Your task to perform on an android device: turn vacation reply on in the gmail app Image 0: 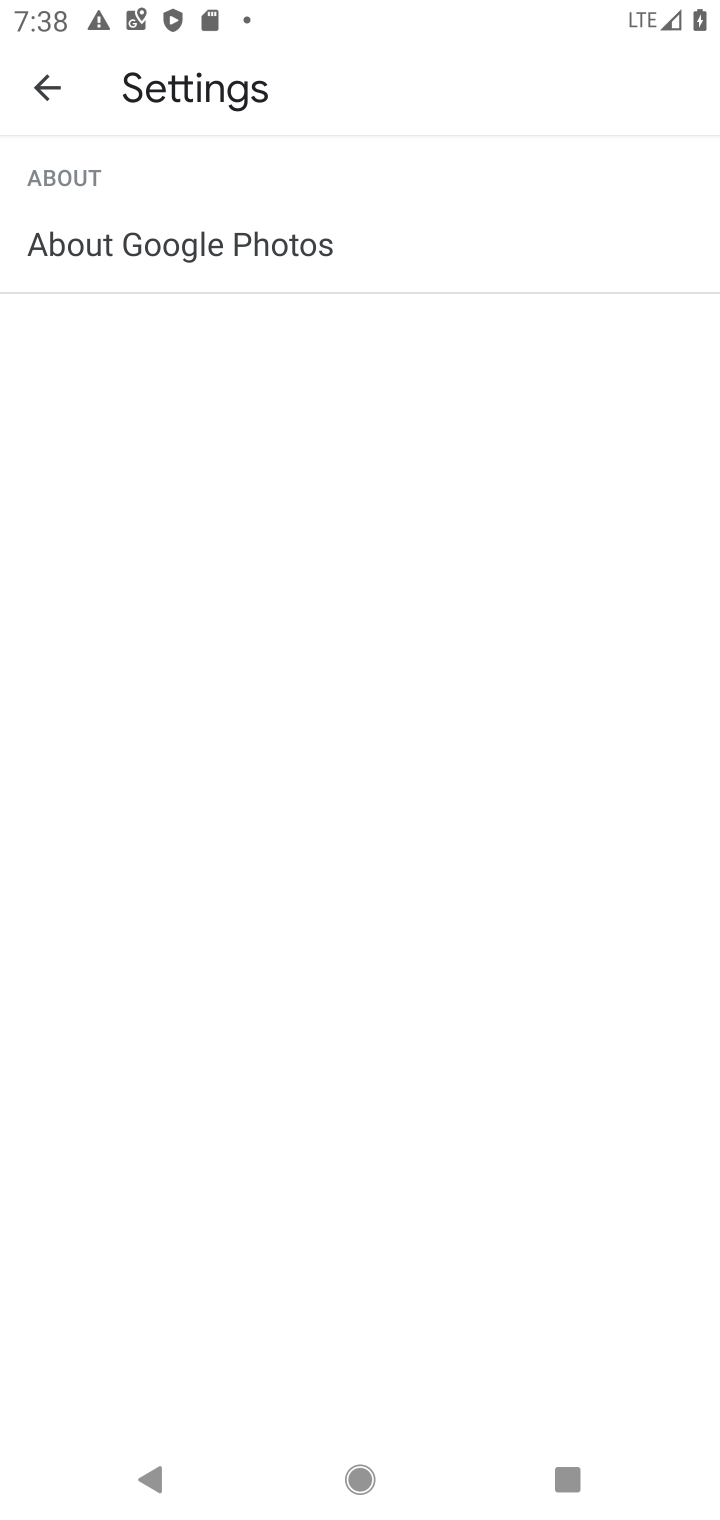
Step 0: press home button
Your task to perform on an android device: turn vacation reply on in the gmail app Image 1: 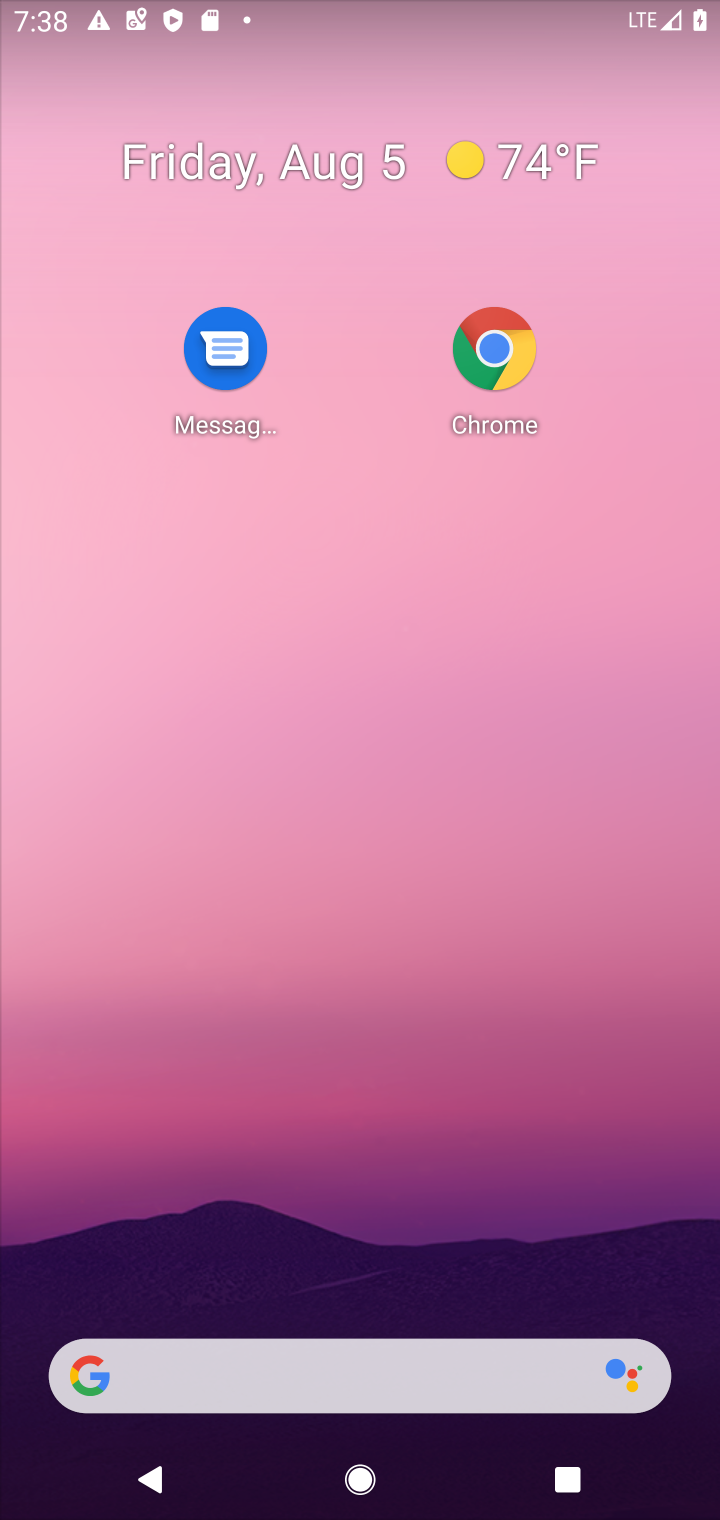
Step 1: drag from (416, 1427) to (406, 738)
Your task to perform on an android device: turn vacation reply on in the gmail app Image 2: 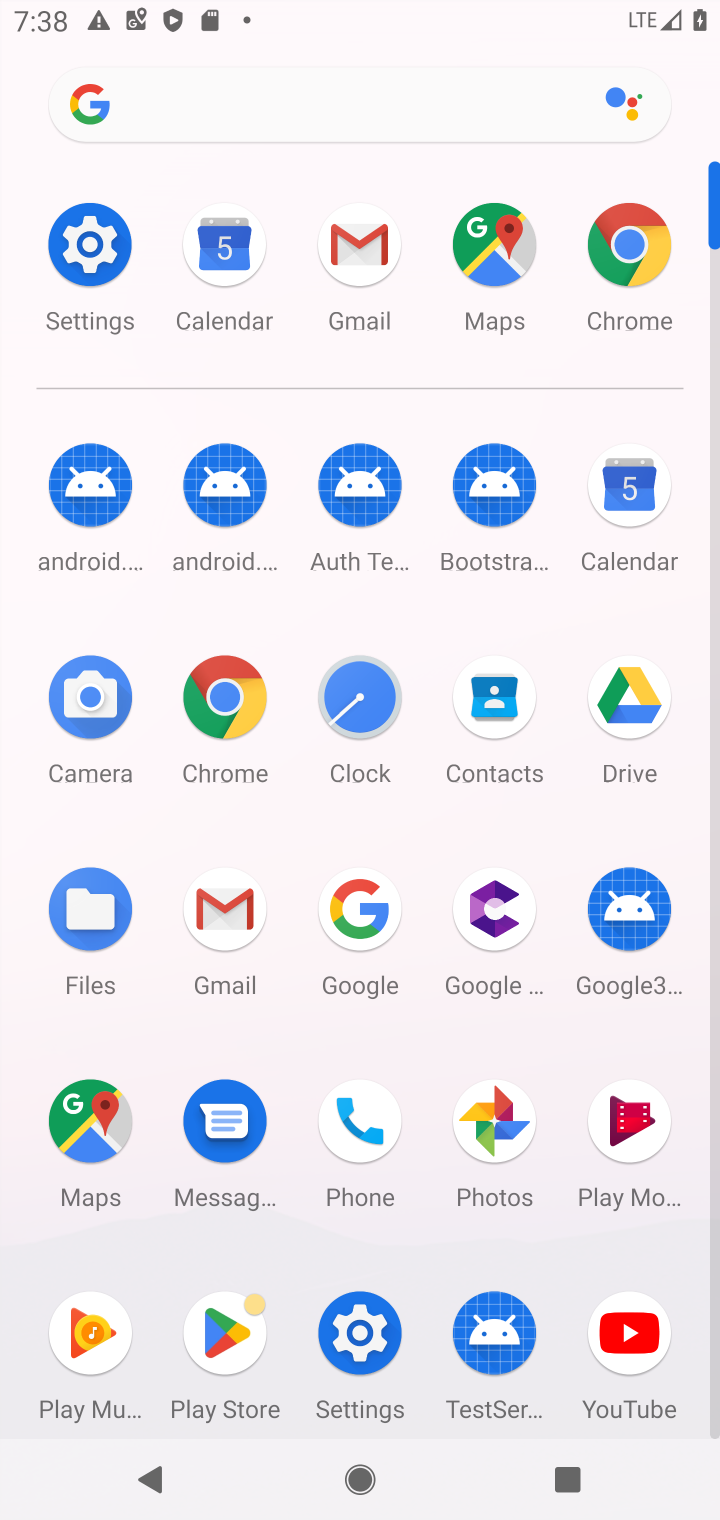
Step 2: click (204, 920)
Your task to perform on an android device: turn vacation reply on in the gmail app Image 3: 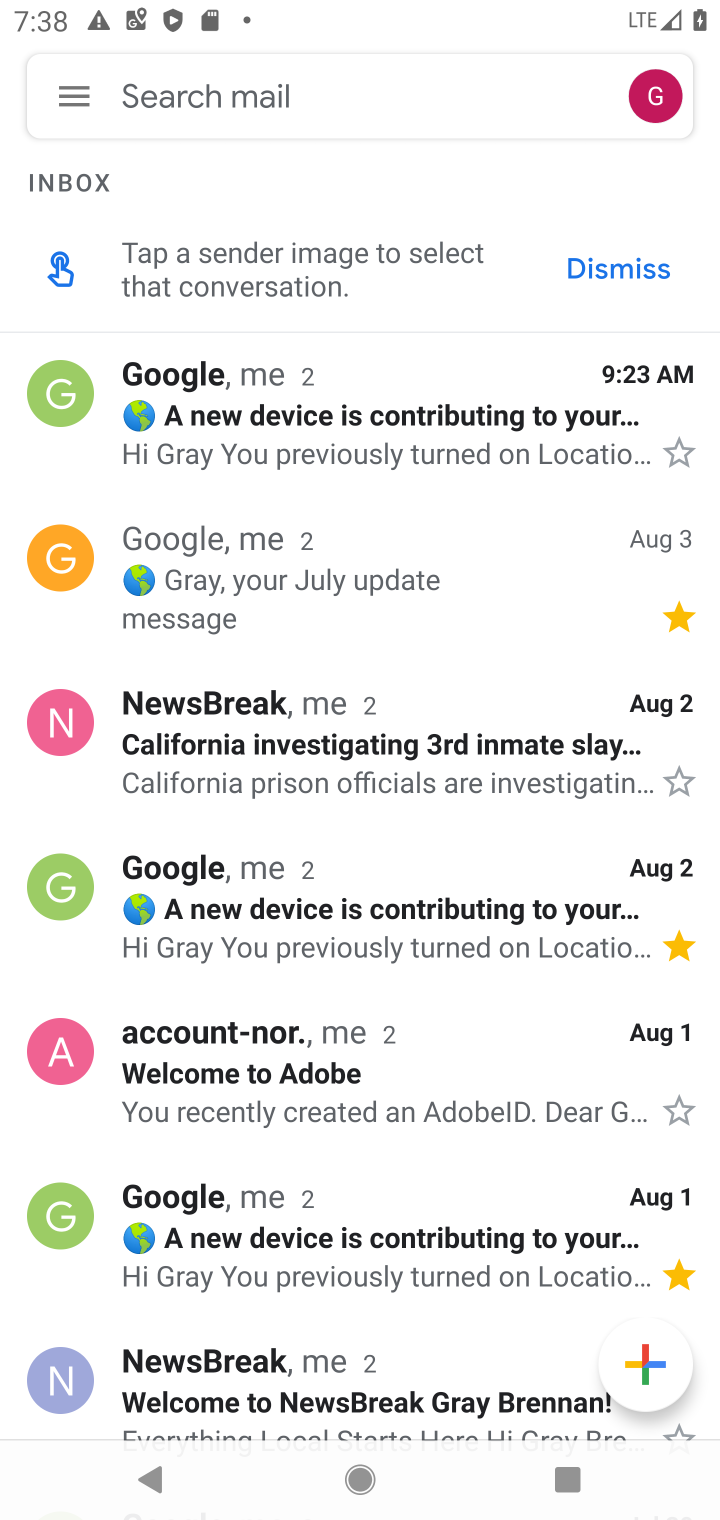
Step 3: click (61, 96)
Your task to perform on an android device: turn vacation reply on in the gmail app Image 4: 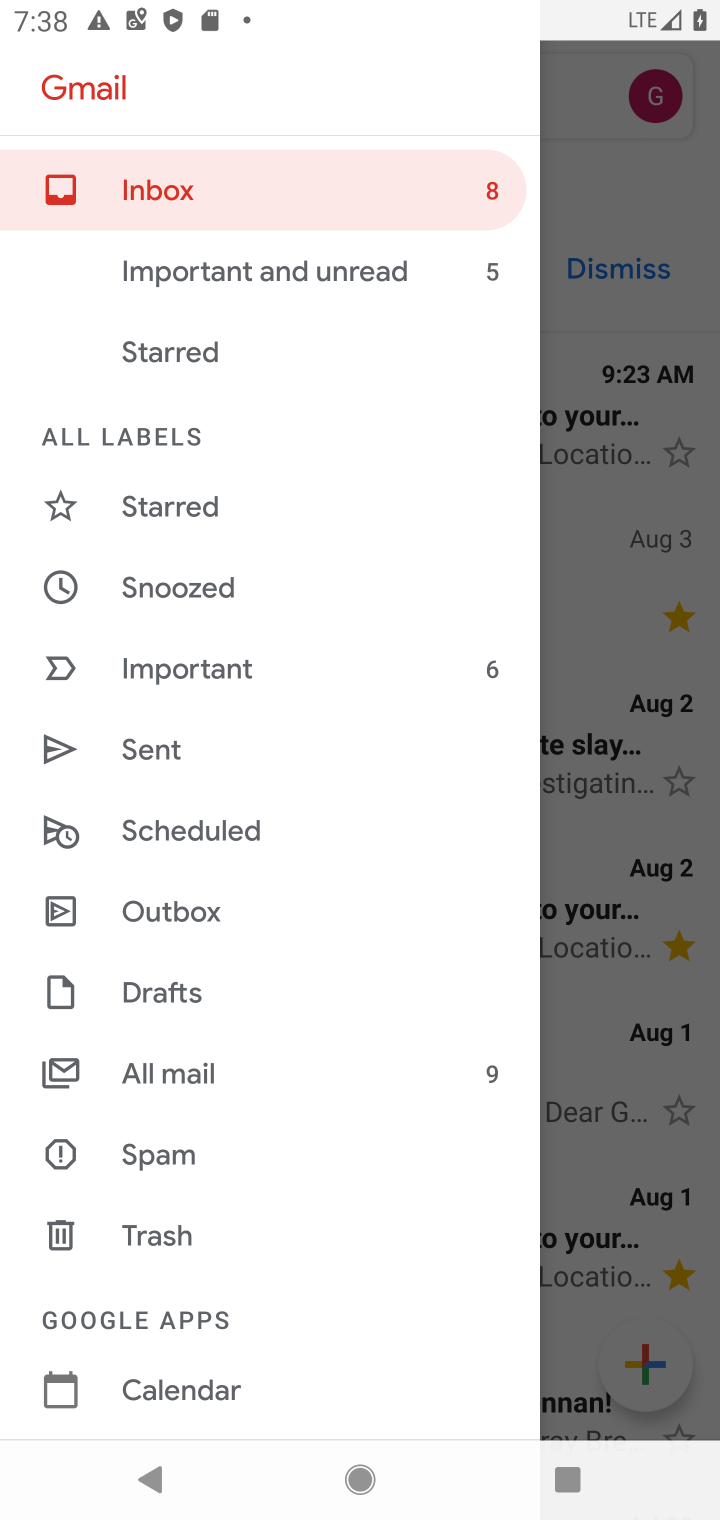
Step 4: drag from (228, 1220) to (386, 793)
Your task to perform on an android device: turn vacation reply on in the gmail app Image 5: 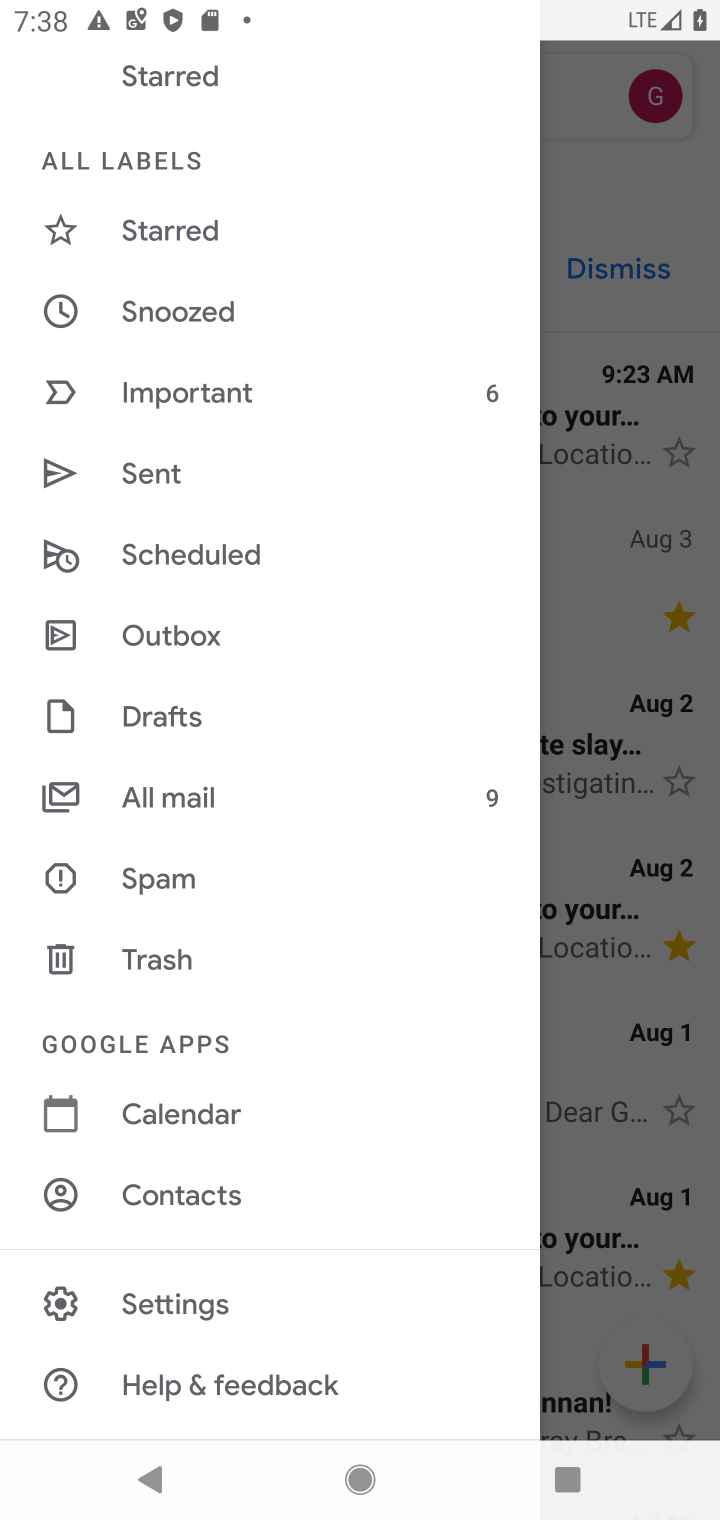
Step 5: click (223, 1320)
Your task to perform on an android device: turn vacation reply on in the gmail app Image 6: 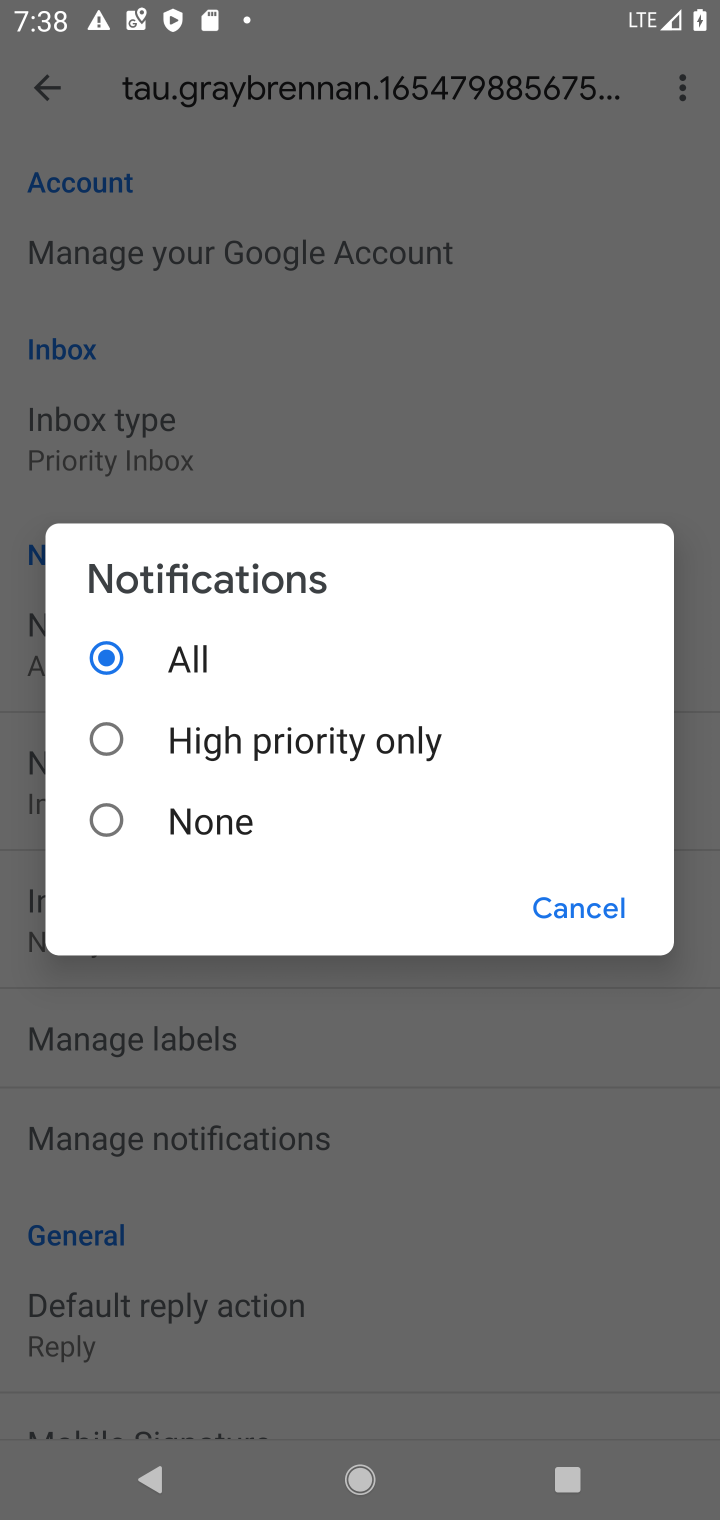
Step 6: click (468, 508)
Your task to perform on an android device: turn vacation reply on in the gmail app Image 7: 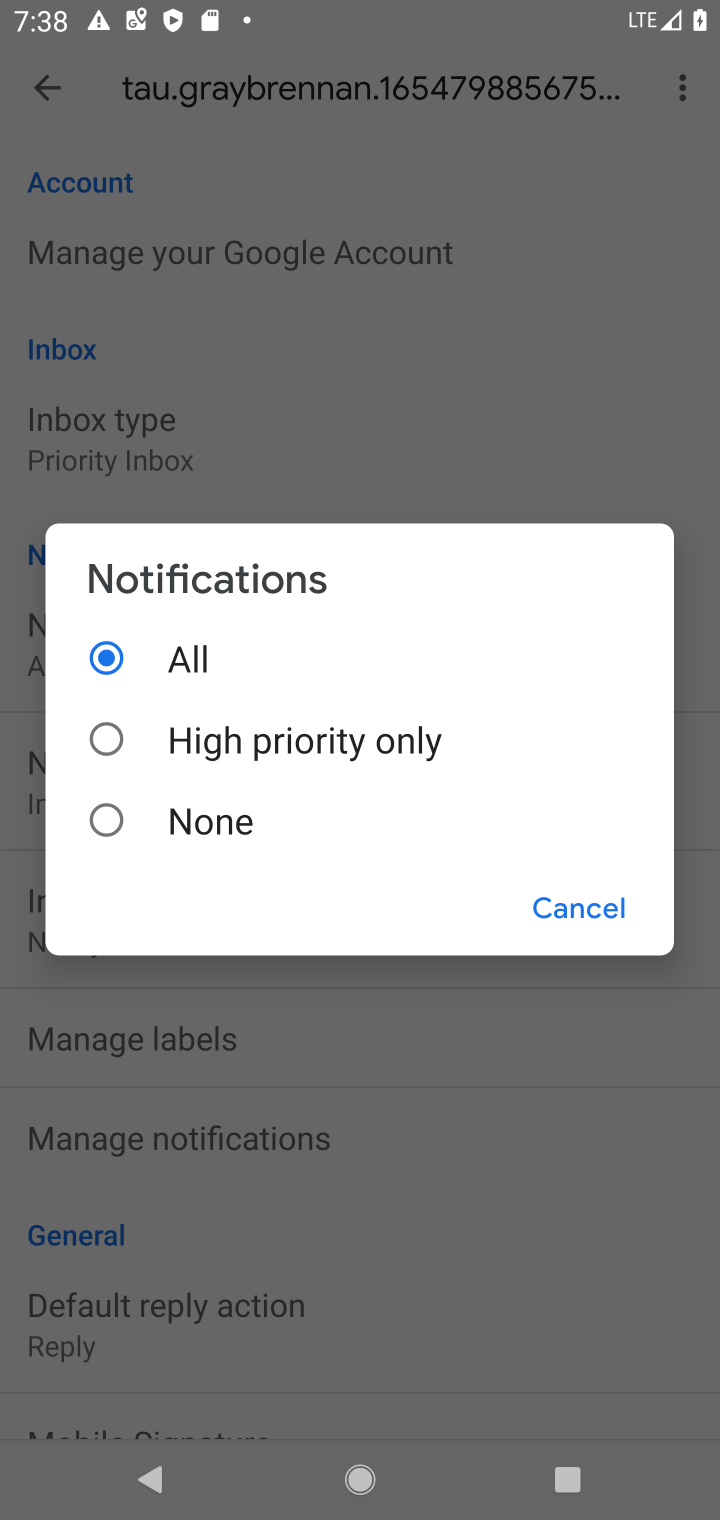
Step 7: click (587, 907)
Your task to perform on an android device: turn vacation reply on in the gmail app Image 8: 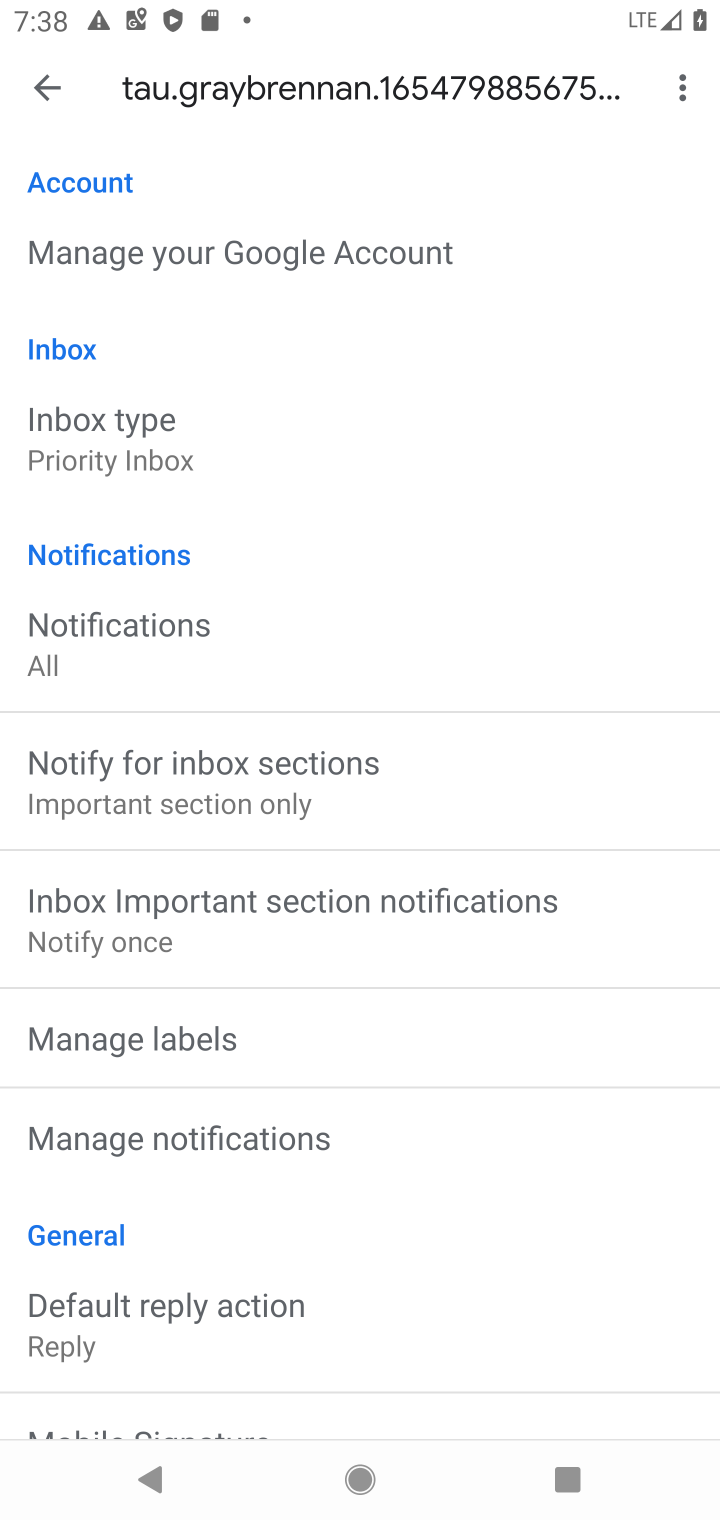
Step 8: drag from (255, 1189) to (312, 625)
Your task to perform on an android device: turn vacation reply on in the gmail app Image 9: 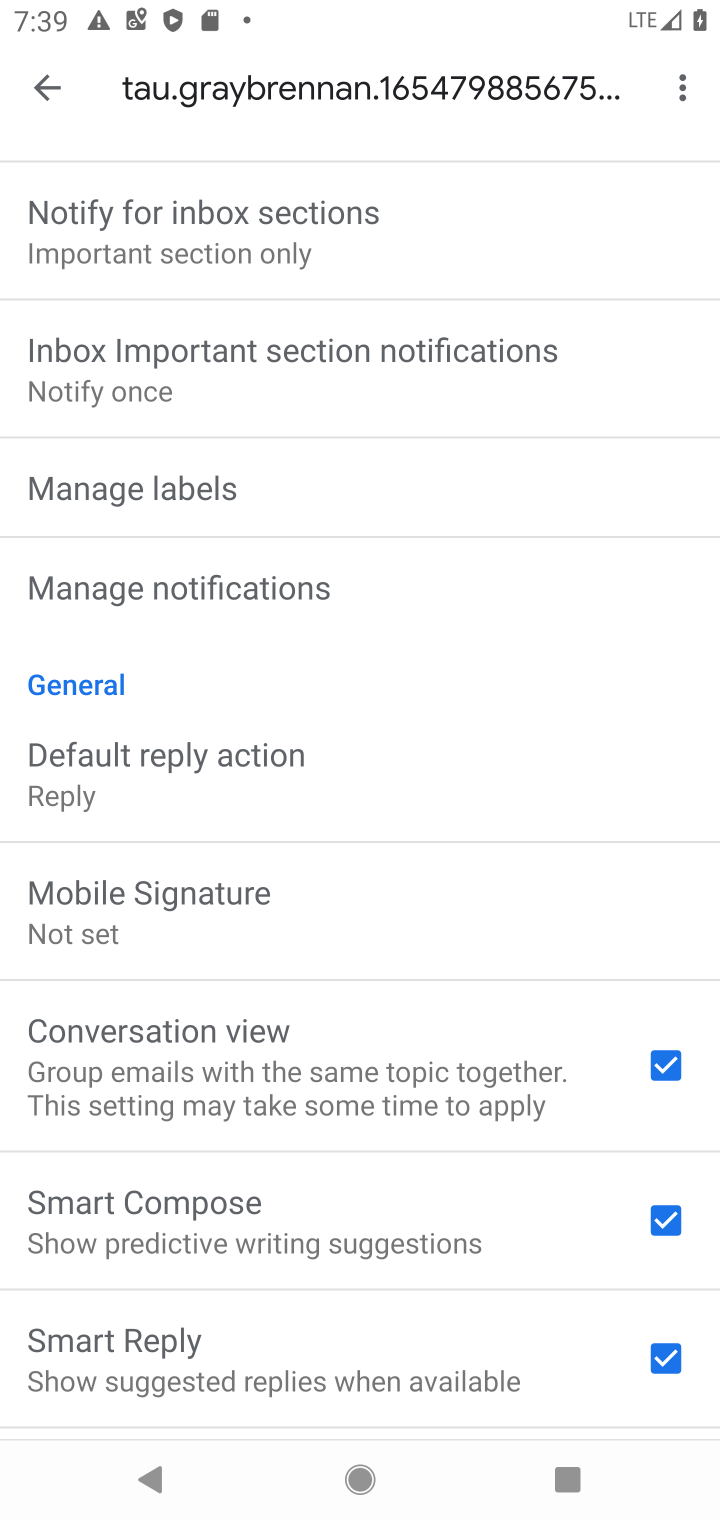
Step 9: drag from (298, 1282) to (263, 1051)
Your task to perform on an android device: turn vacation reply on in the gmail app Image 10: 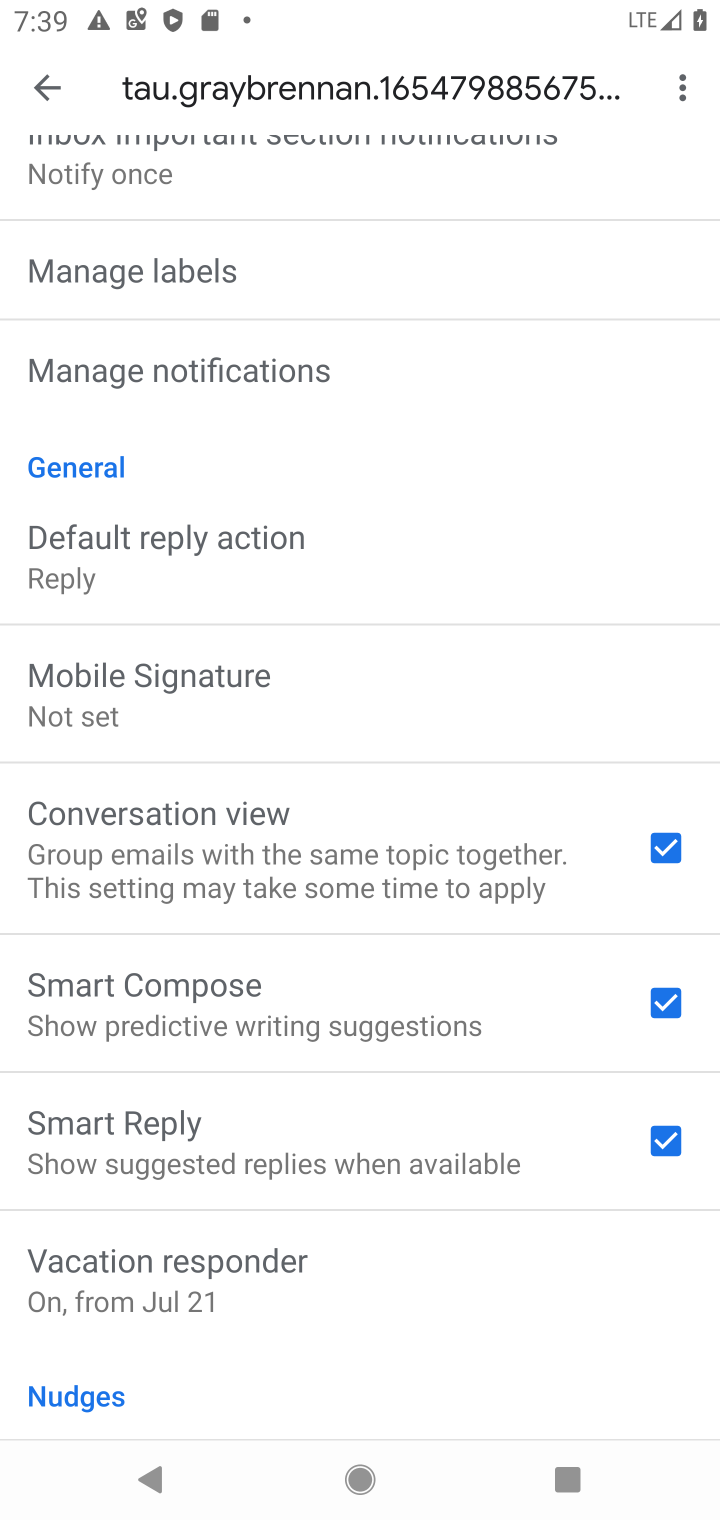
Step 10: click (215, 1242)
Your task to perform on an android device: turn vacation reply on in the gmail app Image 11: 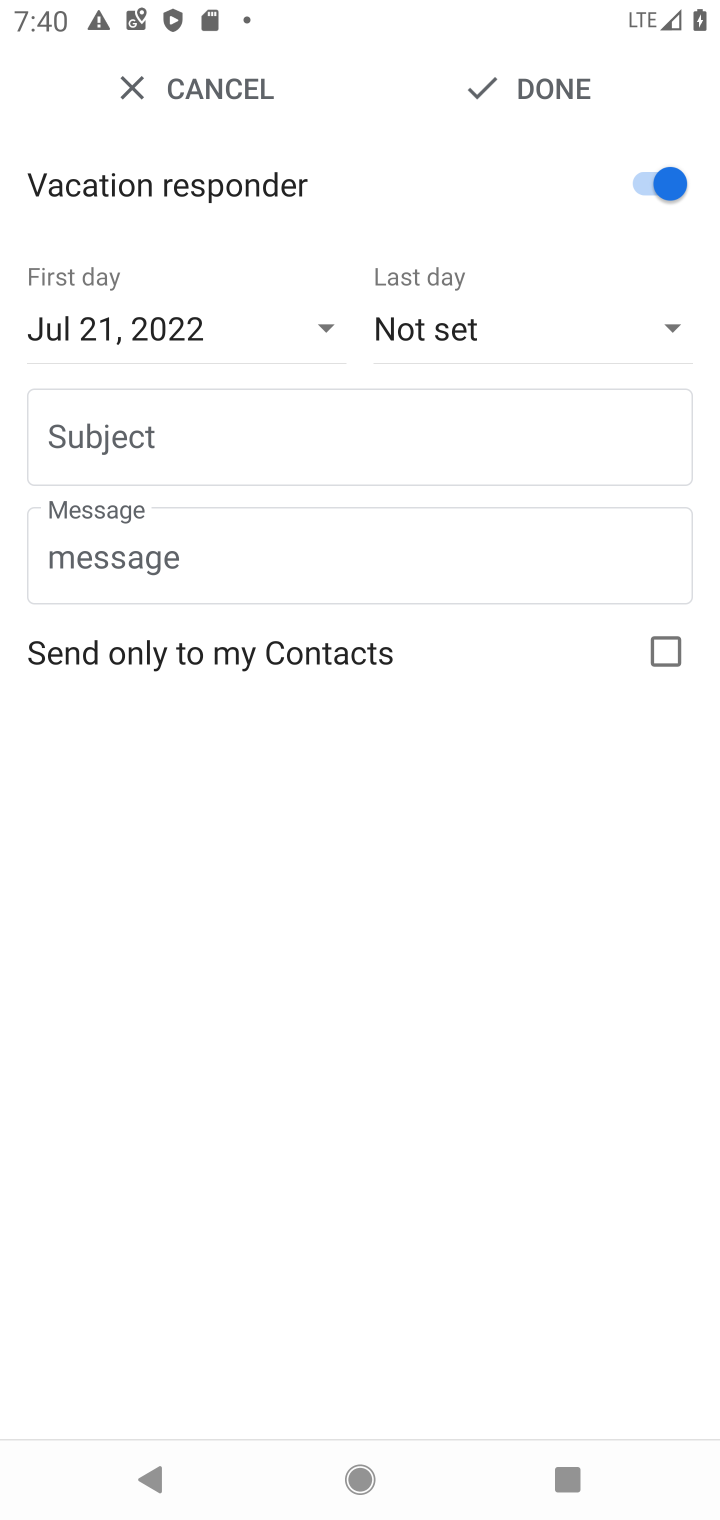
Step 11: task complete